Your task to perform on an android device: Open the Play Movies app and select the watchlist tab. Image 0: 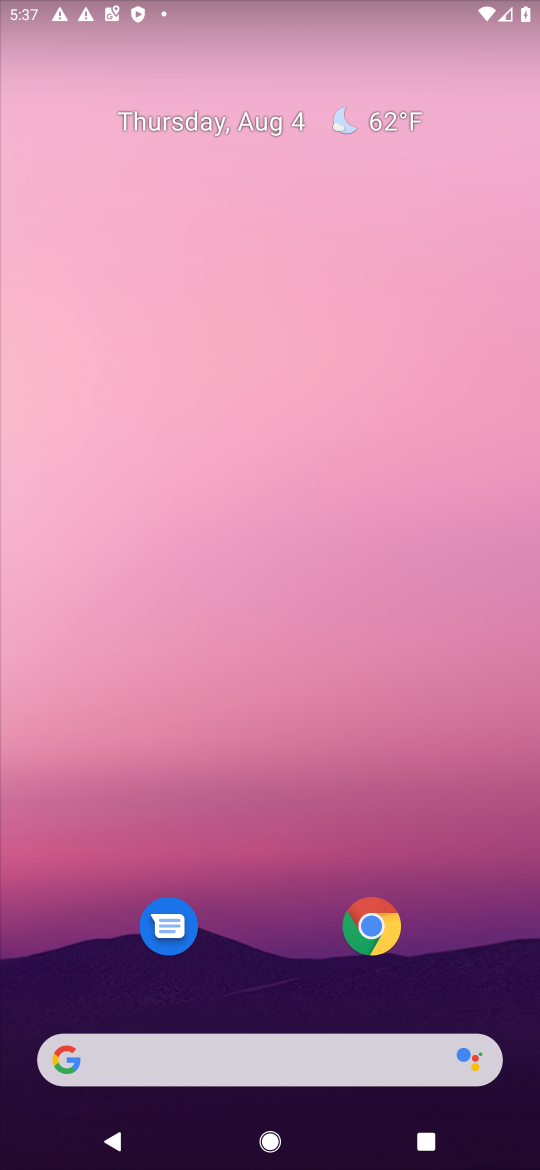
Step 0: drag from (273, 915) to (159, 44)
Your task to perform on an android device: Open the Play Movies app and select the watchlist tab. Image 1: 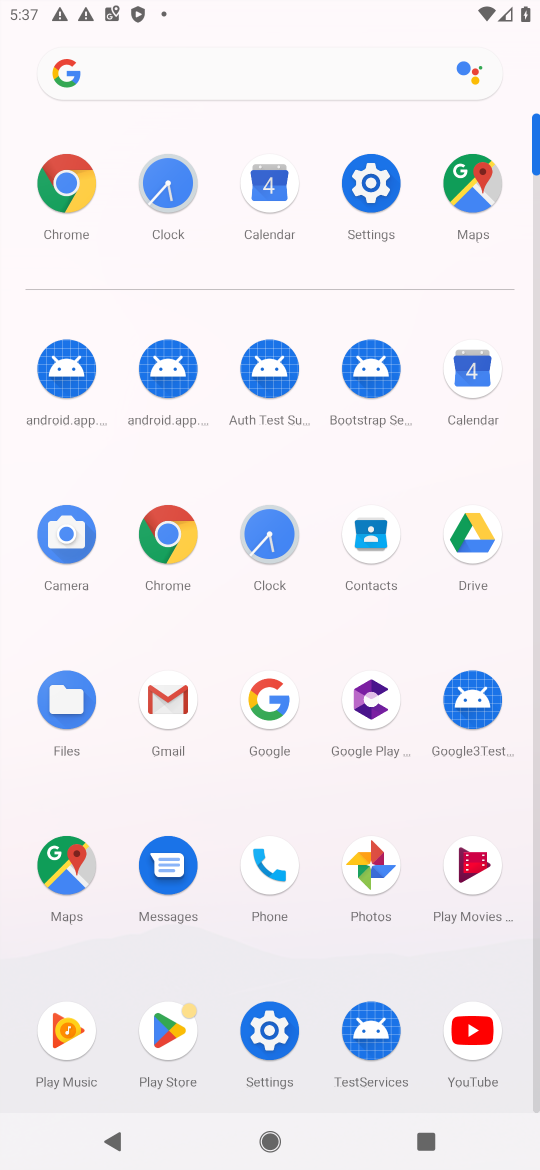
Step 1: click (460, 878)
Your task to perform on an android device: Open the Play Movies app and select the watchlist tab. Image 2: 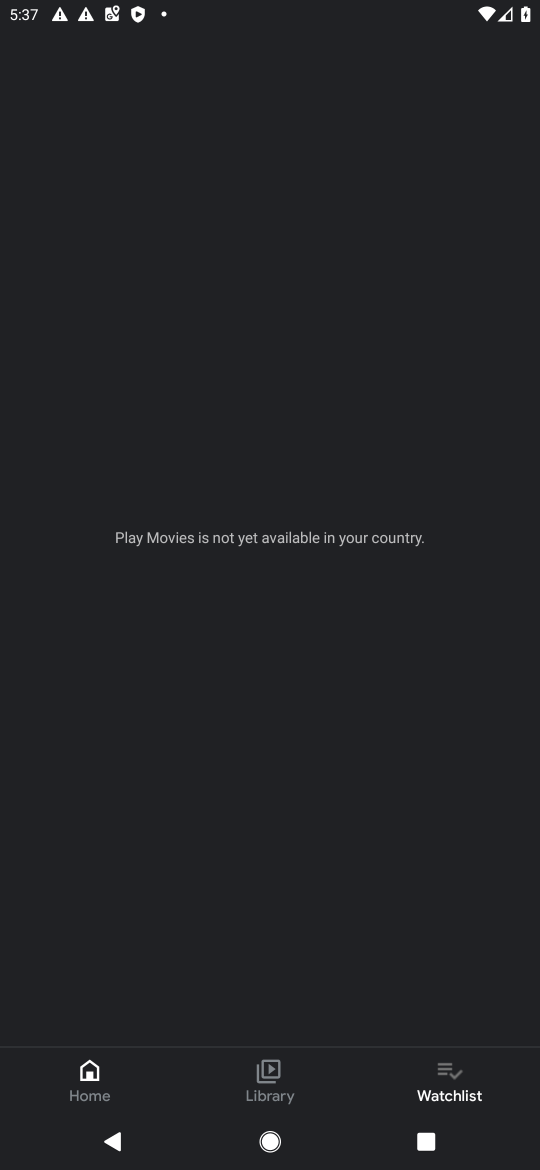
Step 2: click (441, 1080)
Your task to perform on an android device: Open the Play Movies app and select the watchlist tab. Image 3: 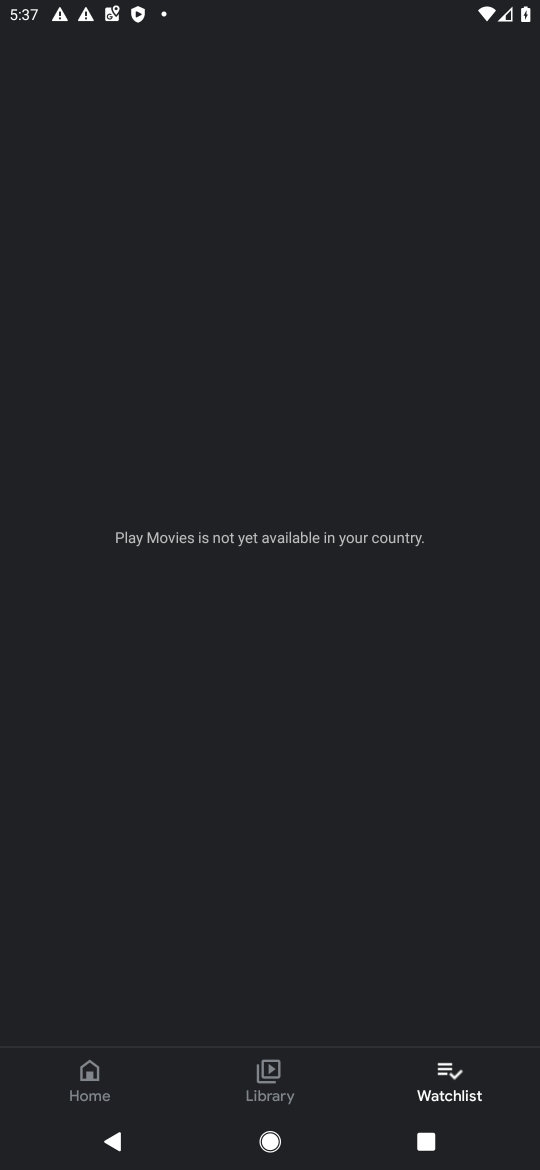
Step 3: task complete